Your task to perform on an android device: Open Wikipedia Image 0: 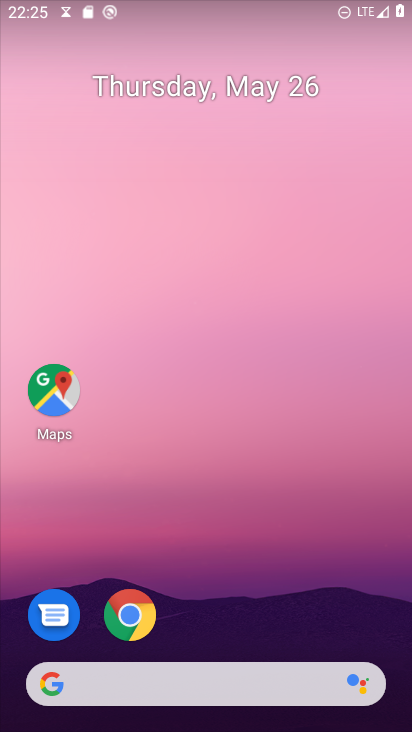
Step 0: click (133, 603)
Your task to perform on an android device: Open Wikipedia Image 1: 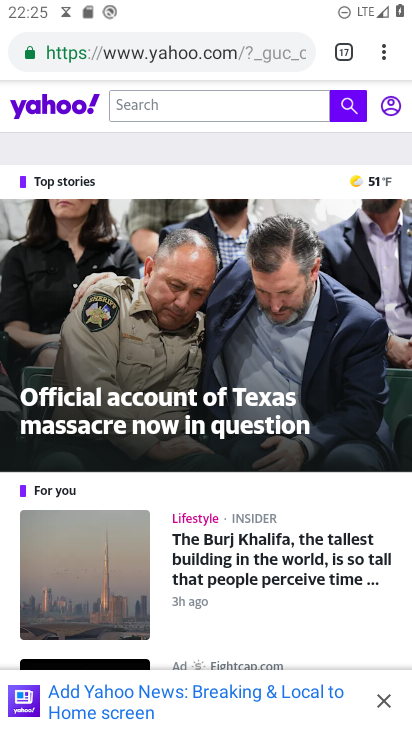
Step 1: click (383, 54)
Your task to perform on an android device: Open Wikipedia Image 2: 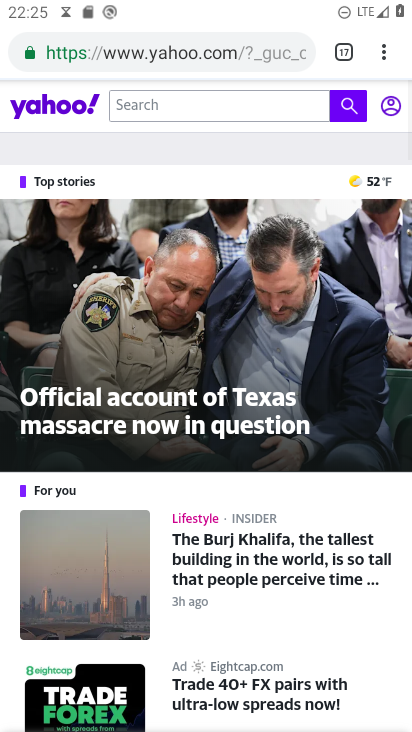
Step 2: click (382, 43)
Your task to perform on an android device: Open Wikipedia Image 3: 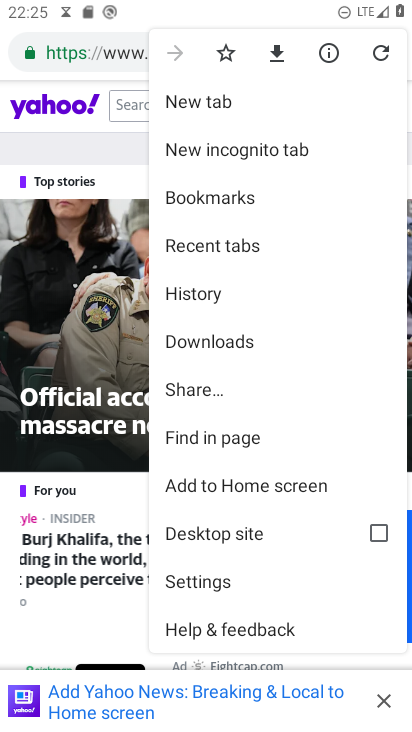
Step 3: drag from (234, 576) to (223, 119)
Your task to perform on an android device: Open Wikipedia Image 4: 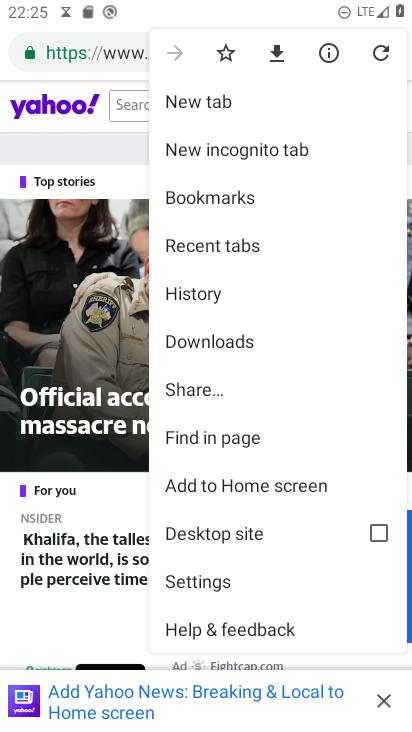
Step 4: click (213, 103)
Your task to perform on an android device: Open Wikipedia Image 5: 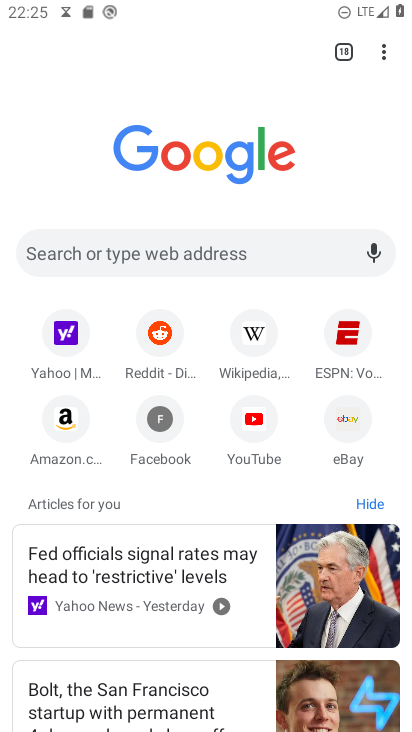
Step 5: click (261, 324)
Your task to perform on an android device: Open Wikipedia Image 6: 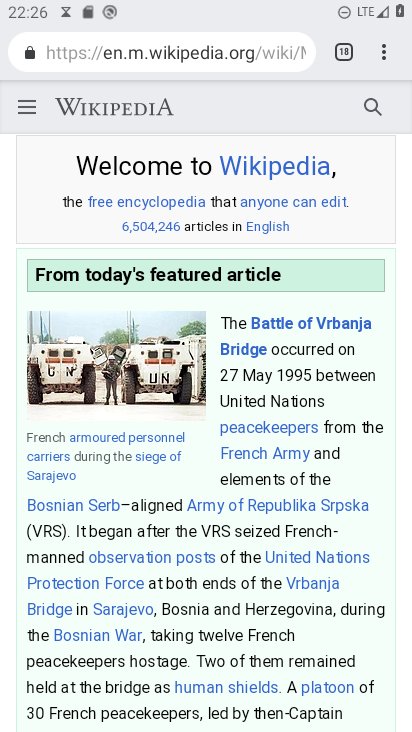
Step 6: task complete